Your task to perform on an android device: Open display settings Image 0: 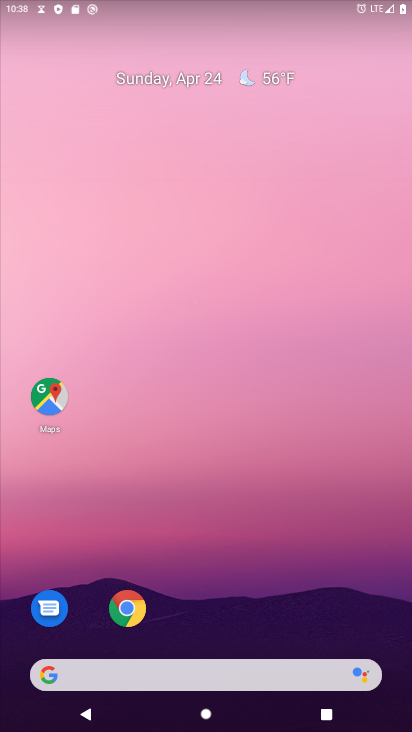
Step 0: drag from (206, 650) to (261, 15)
Your task to perform on an android device: Open display settings Image 1: 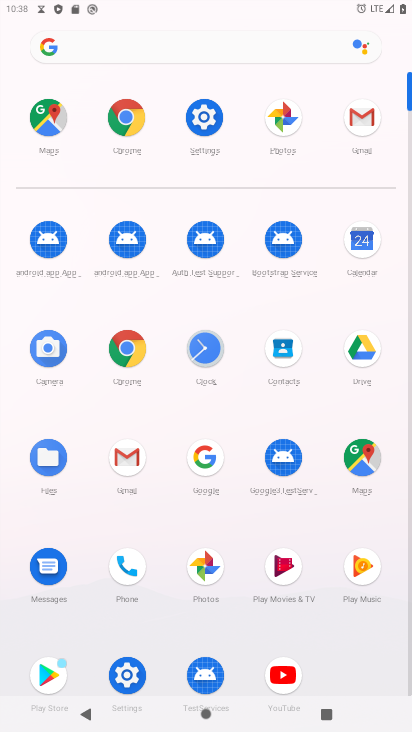
Step 1: click (125, 671)
Your task to perform on an android device: Open display settings Image 2: 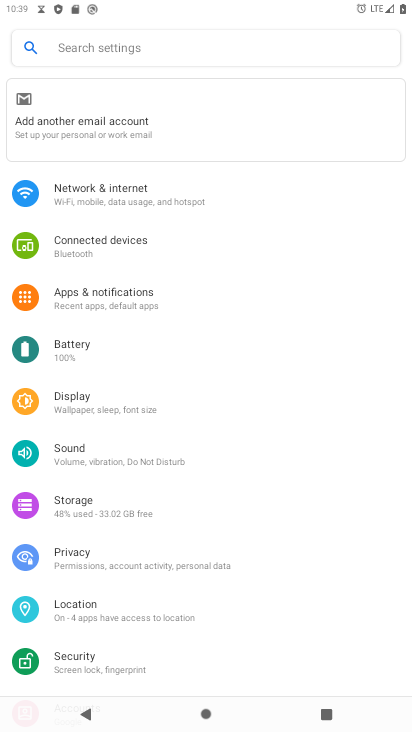
Step 2: click (77, 386)
Your task to perform on an android device: Open display settings Image 3: 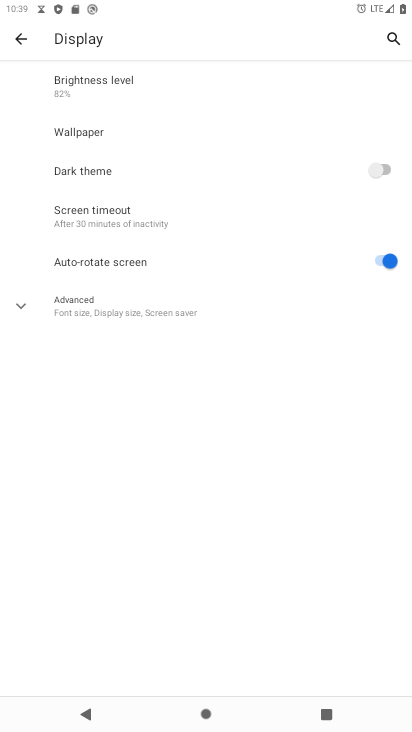
Step 3: click (67, 299)
Your task to perform on an android device: Open display settings Image 4: 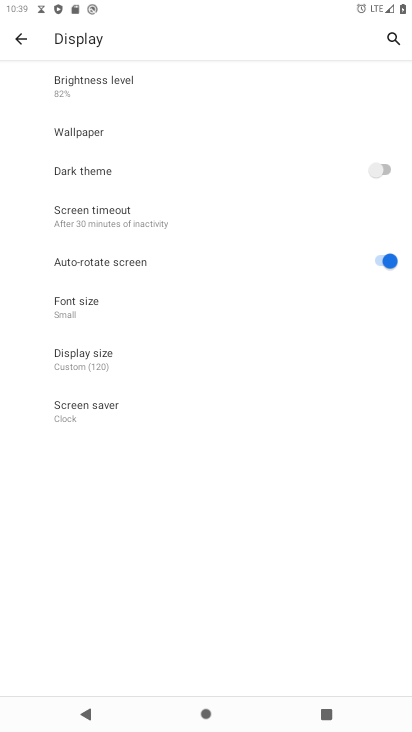
Step 4: task complete